Your task to perform on an android device: check android version Image 0: 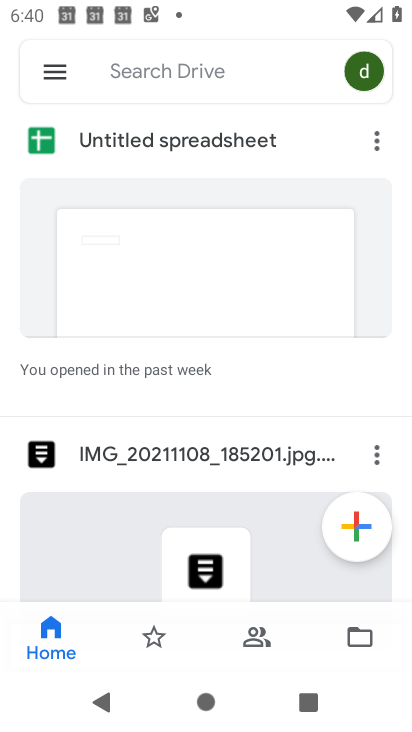
Step 0: press home button
Your task to perform on an android device: check android version Image 1: 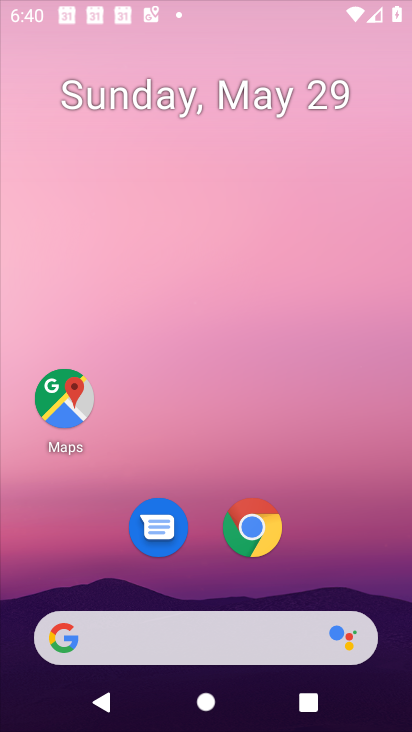
Step 1: drag from (318, 594) to (236, 20)
Your task to perform on an android device: check android version Image 2: 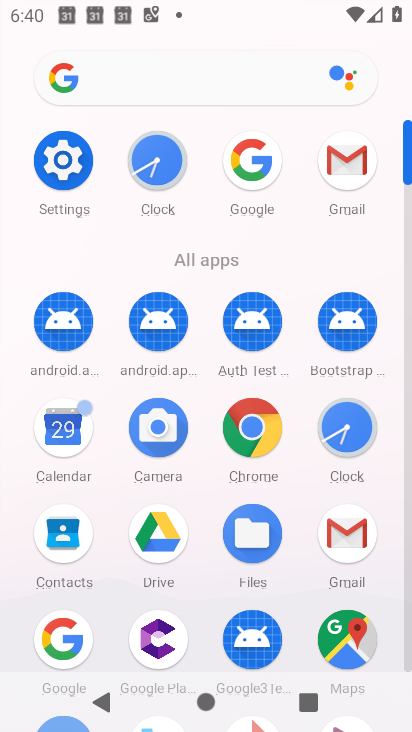
Step 2: click (67, 178)
Your task to perform on an android device: check android version Image 3: 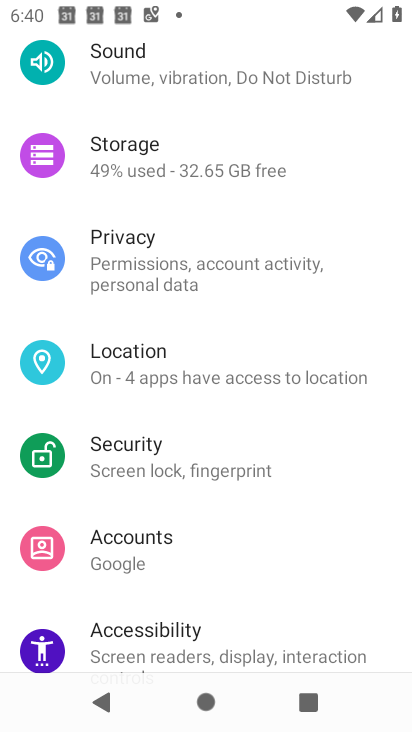
Step 3: drag from (205, 589) to (170, 26)
Your task to perform on an android device: check android version Image 4: 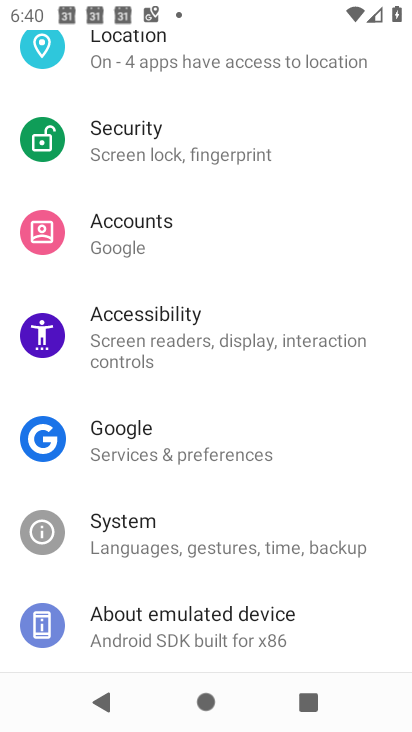
Step 4: click (128, 633)
Your task to perform on an android device: check android version Image 5: 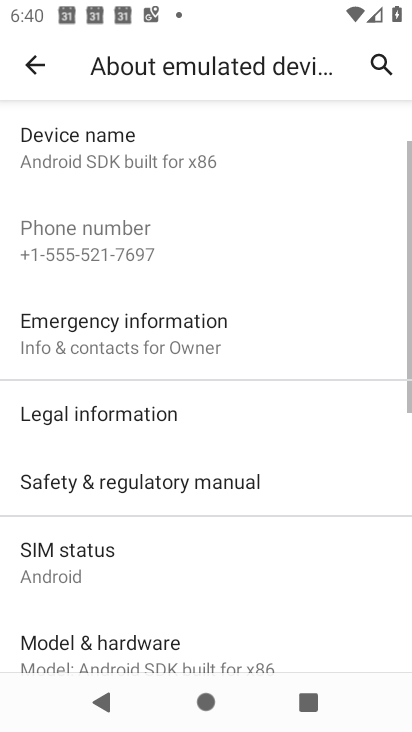
Step 5: drag from (191, 506) to (228, 110)
Your task to perform on an android device: check android version Image 6: 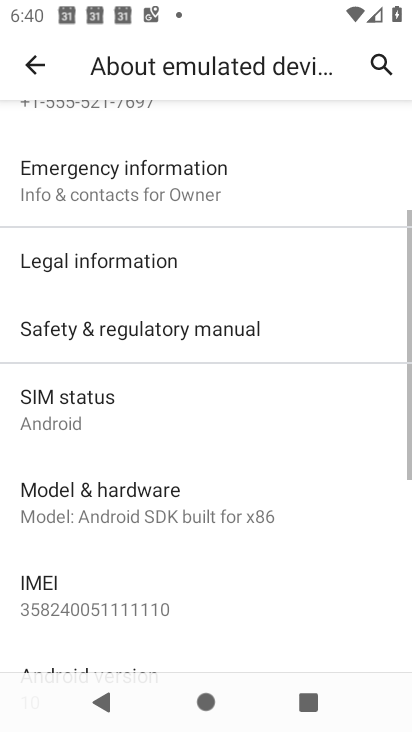
Step 6: drag from (44, 612) to (136, 181)
Your task to perform on an android device: check android version Image 7: 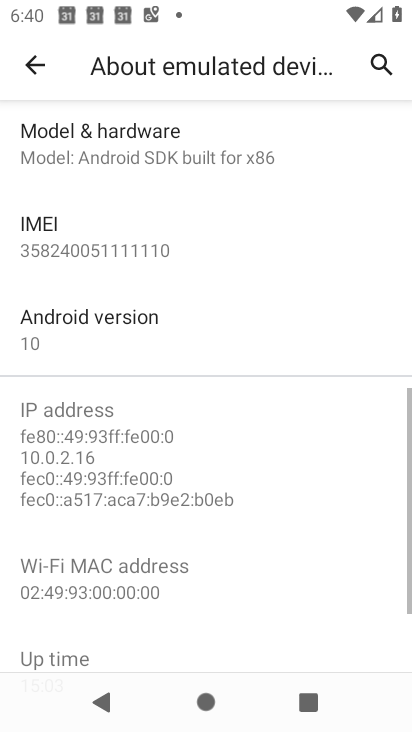
Step 7: click (131, 326)
Your task to perform on an android device: check android version Image 8: 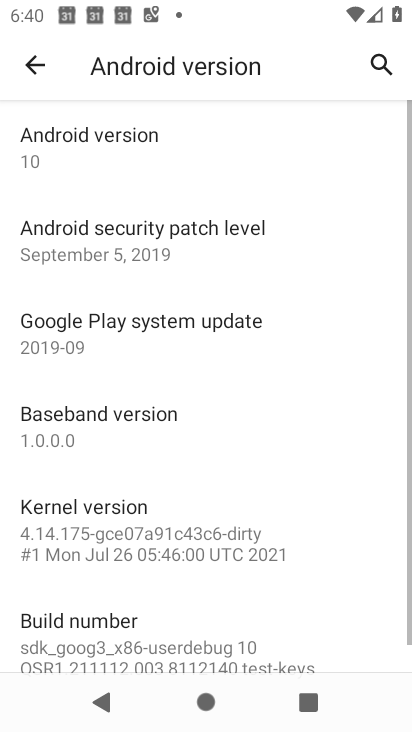
Step 8: task complete